Your task to perform on an android device: Open Chrome and go to settings Image 0: 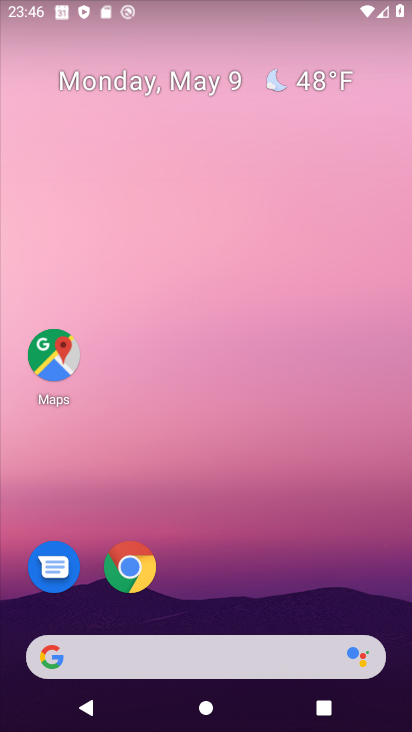
Step 0: click (129, 568)
Your task to perform on an android device: Open Chrome and go to settings Image 1: 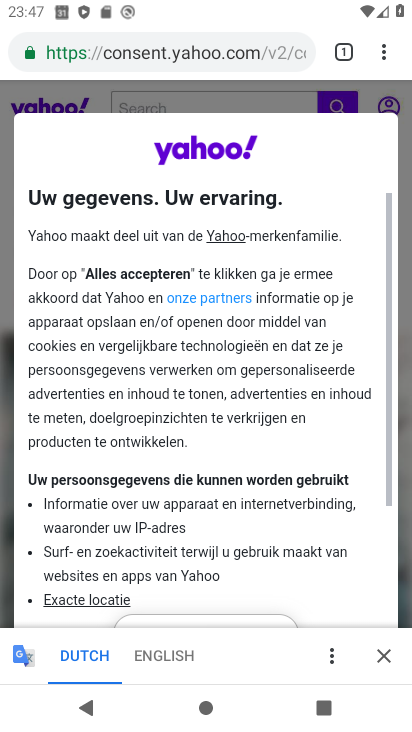
Step 1: click (384, 53)
Your task to perform on an android device: Open Chrome and go to settings Image 2: 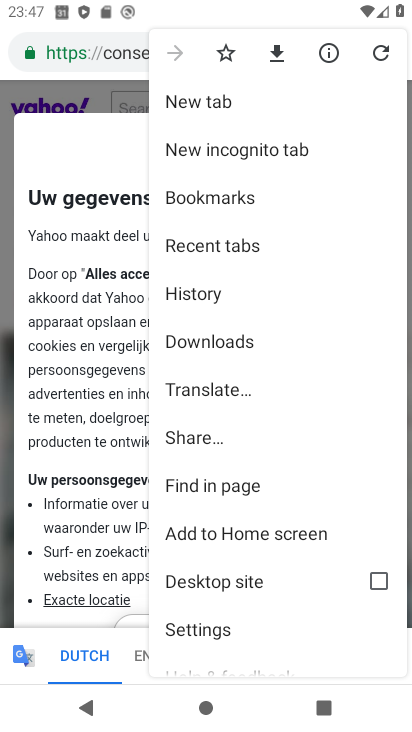
Step 2: click (204, 630)
Your task to perform on an android device: Open Chrome and go to settings Image 3: 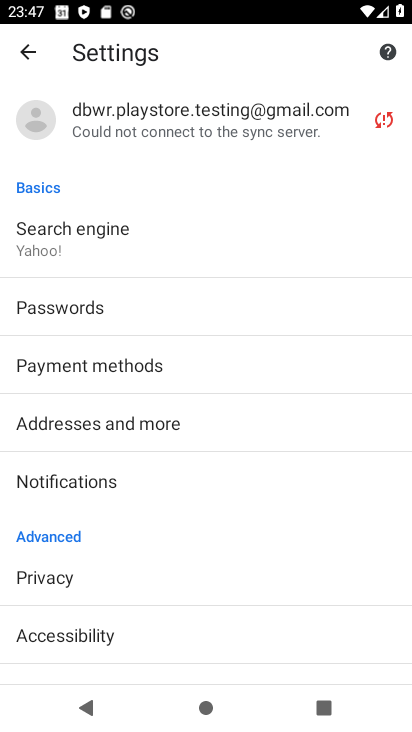
Step 3: task complete